Your task to perform on an android device: refresh tabs in the chrome app Image 0: 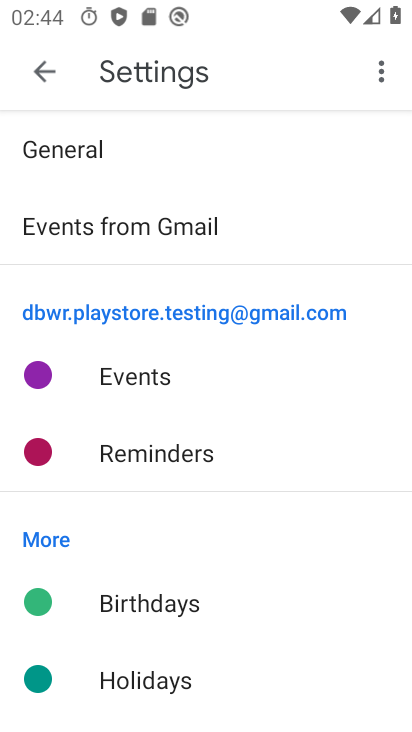
Step 0: press home button
Your task to perform on an android device: refresh tabs in the chrome app Image 1: 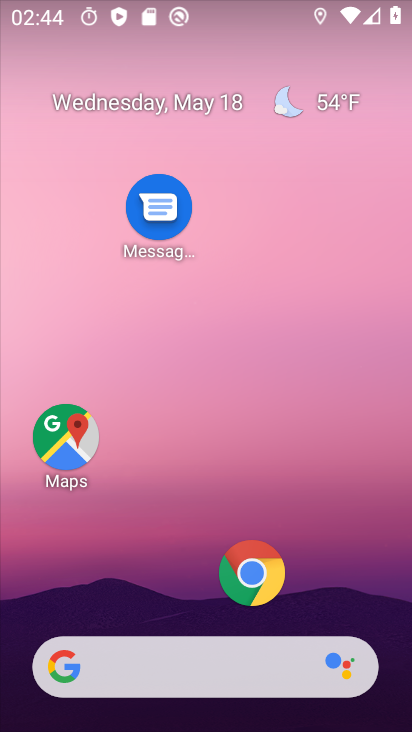
Step 1: click (232, 580)
Your task to perform on an android device: refresh tabs in the chrome app Image 2: 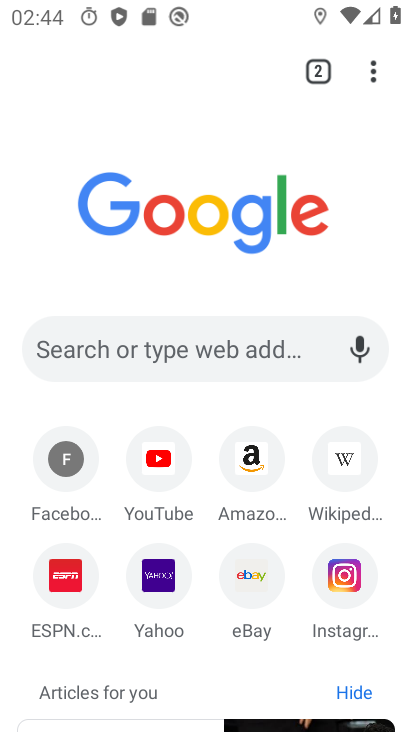
Step 2: click (370, 79)
Your task to perform on an android device: refresh tabs in the chrome app Image 3: 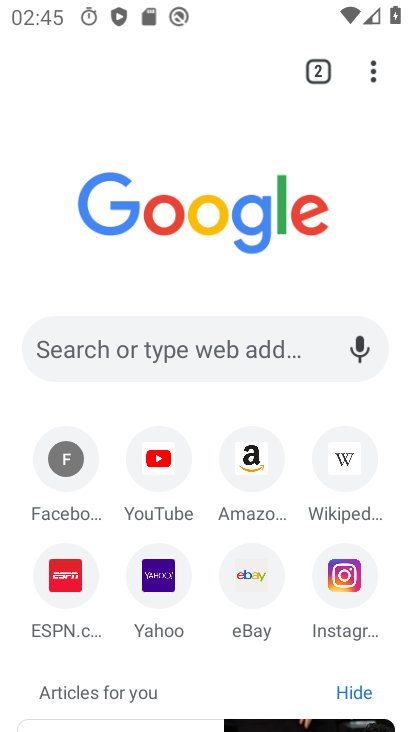
Step 3: click (372, 78)
Your task to perform on an android device: refresh tabs in the chrome app Image 4: 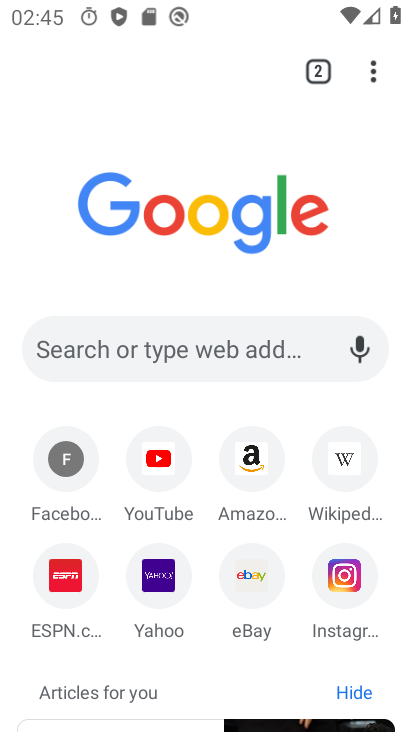
Step 4: click (369, 75)
Your task to perform on an android device: refresh tabs in the chrome app Image 5: 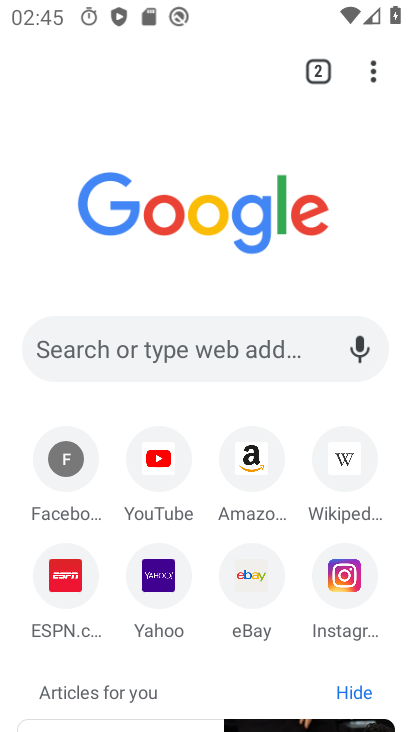
Step 5: task complete